Your task to perform on an android device: check out phone information Image 0: 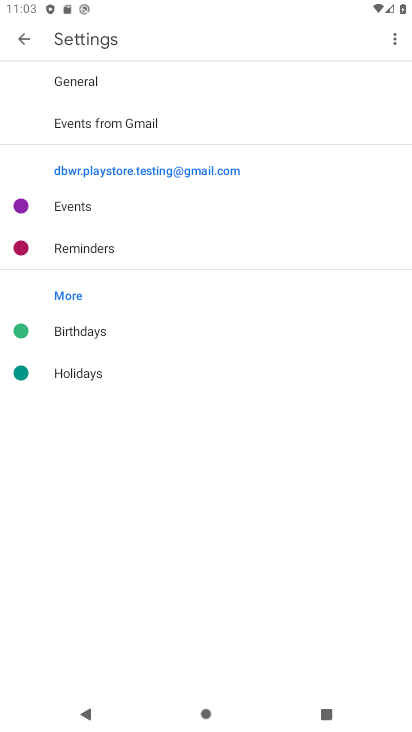
Step 0: press home button
Your task to perform on an android device: check out phone information Image 1: 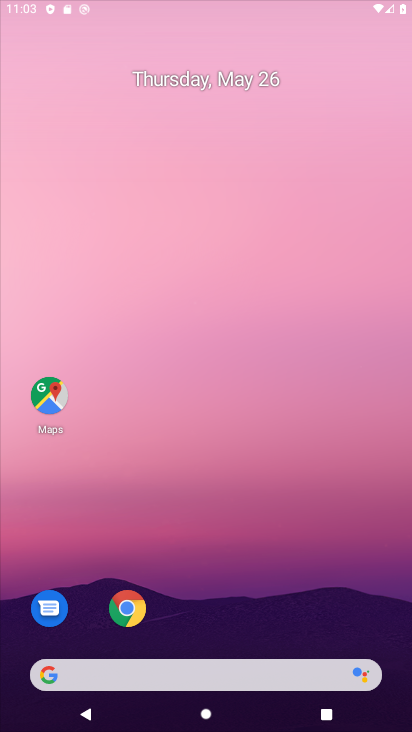
Step 1: drag from (238, 548) to (266, 134)
Your task to perform on an android device: check out phone information Image 2: 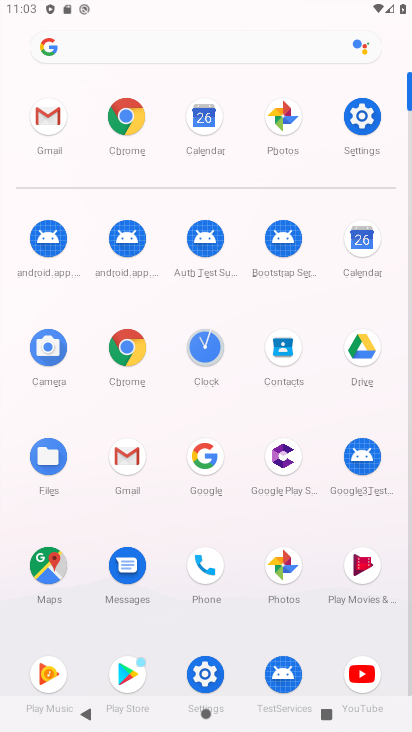
Step 2: click (216, 569)
Your task to perform on an android device: check out phone information Image 3: 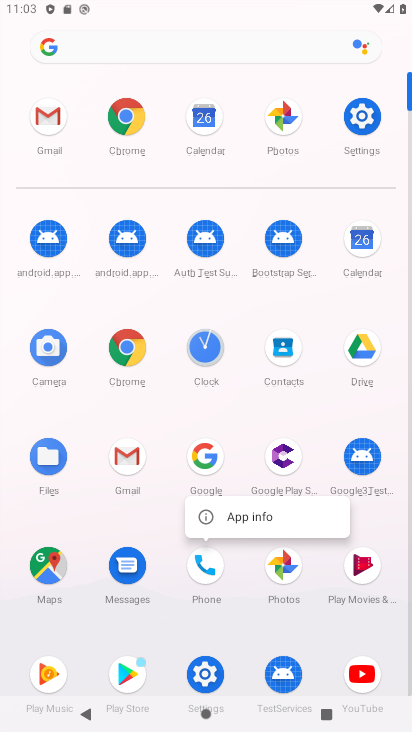
Step 3: click (234, 510)
Your task to perform on an android device: check out phone information Image 4: 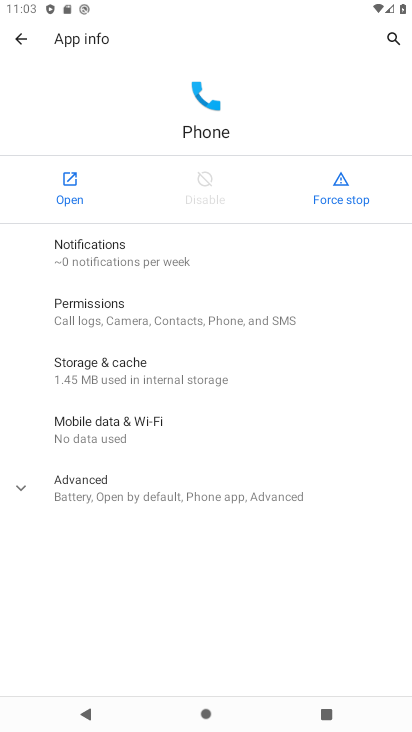
Step 4: click (228, 502)
Your task to perform on an android device: check out phone information Image 5: 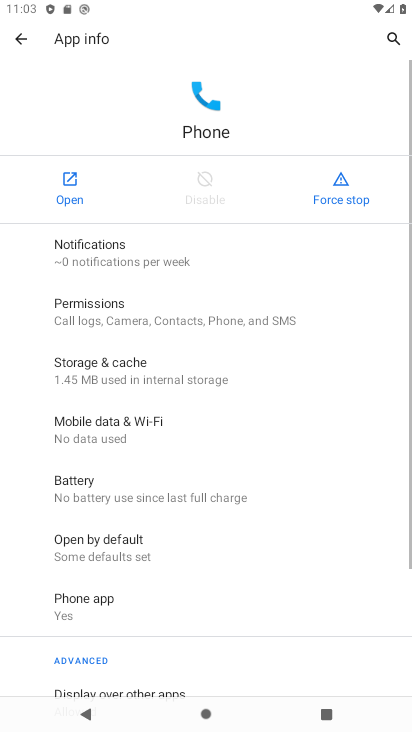
Step 5: task complete